Your task to perform on an android device: add a contact Image 0: 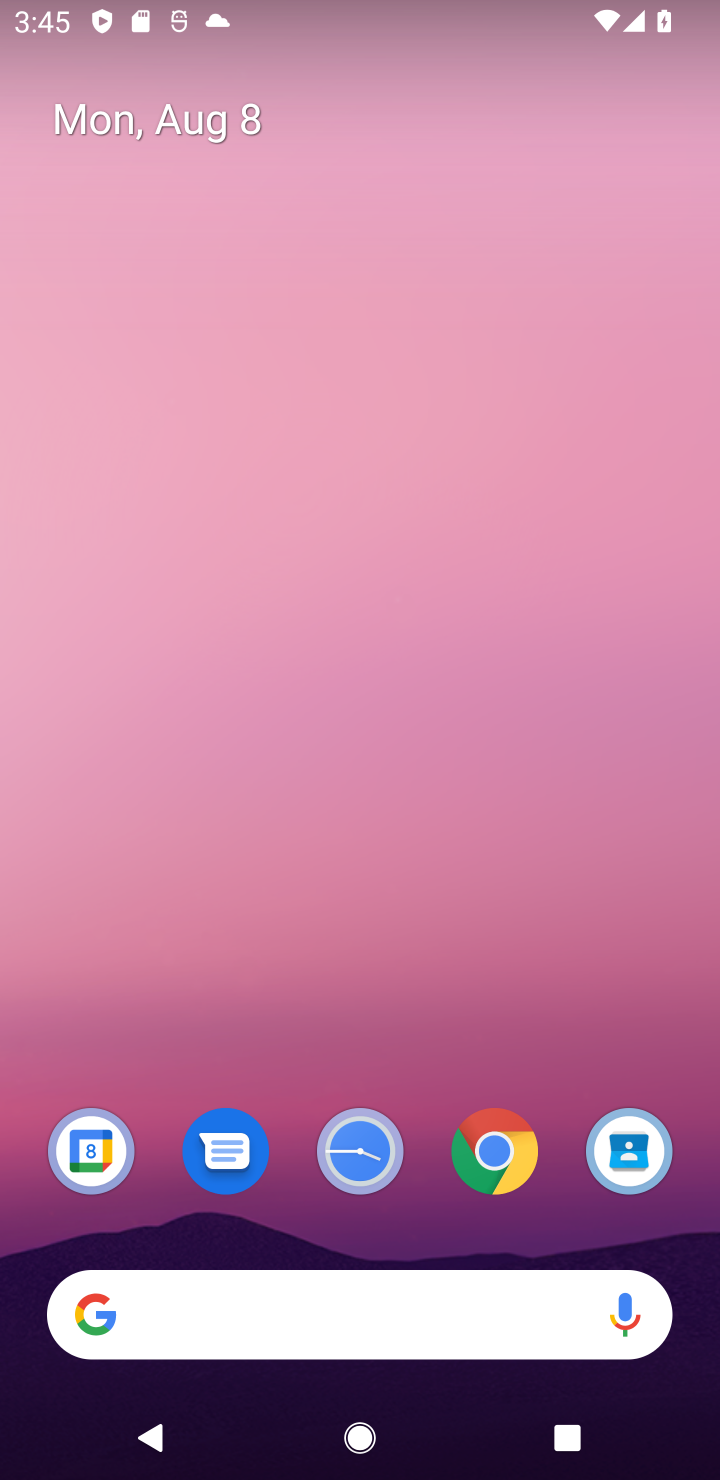
Step 0: drag from (322, 1049) to (309, 184)
Your task to perform on an android device: add a contact Image 1: 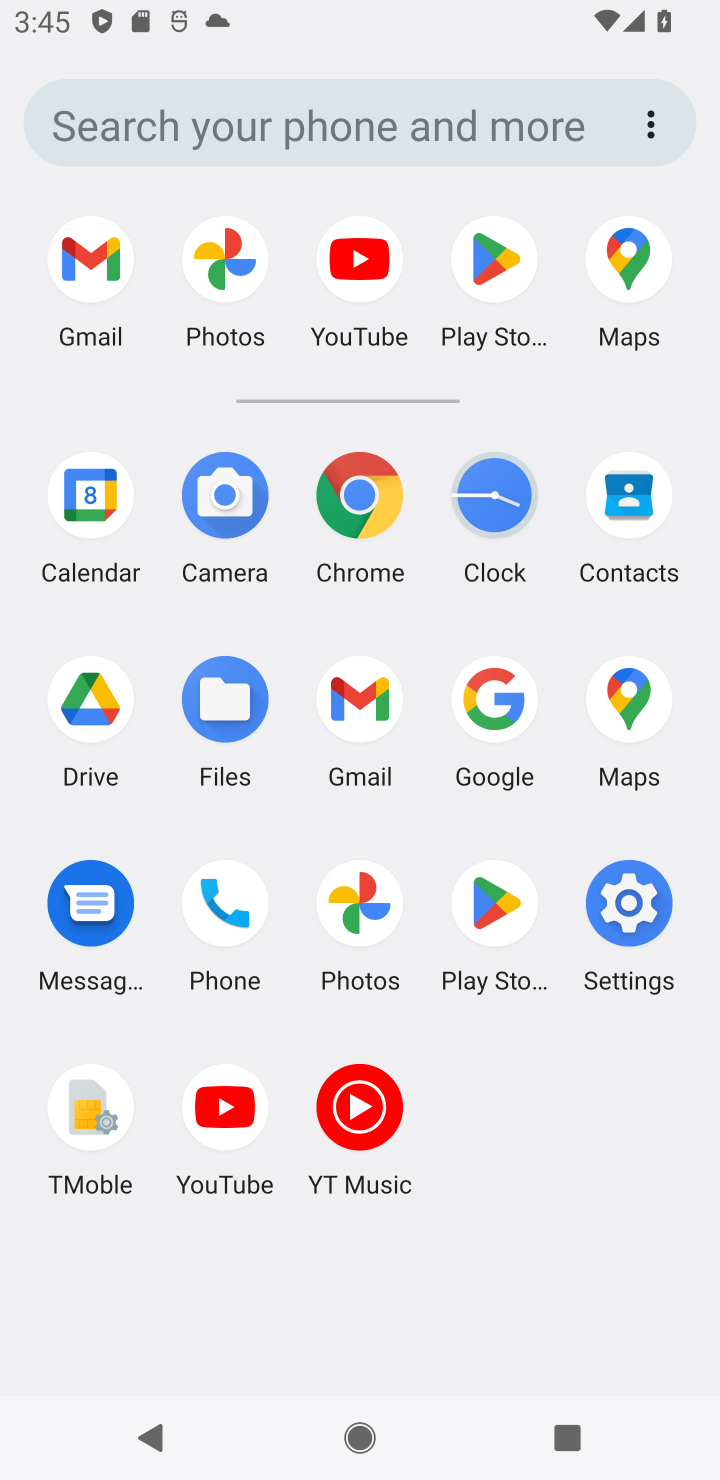
Step 1: click (630, 521)
Your task to perform on an android device: add a contact Image 2: 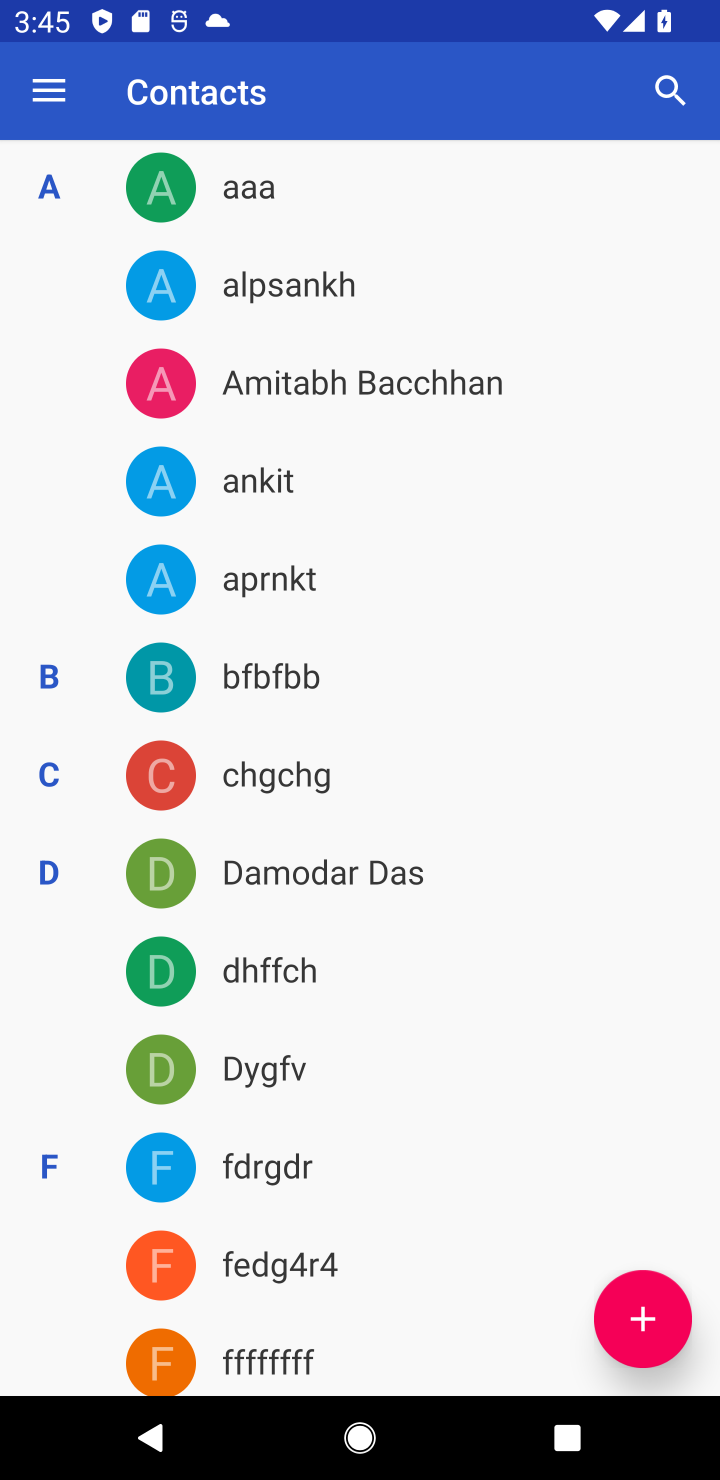
Step 2: click (636, 1298)
Your task to perform on an android device: add a contact Image 3: 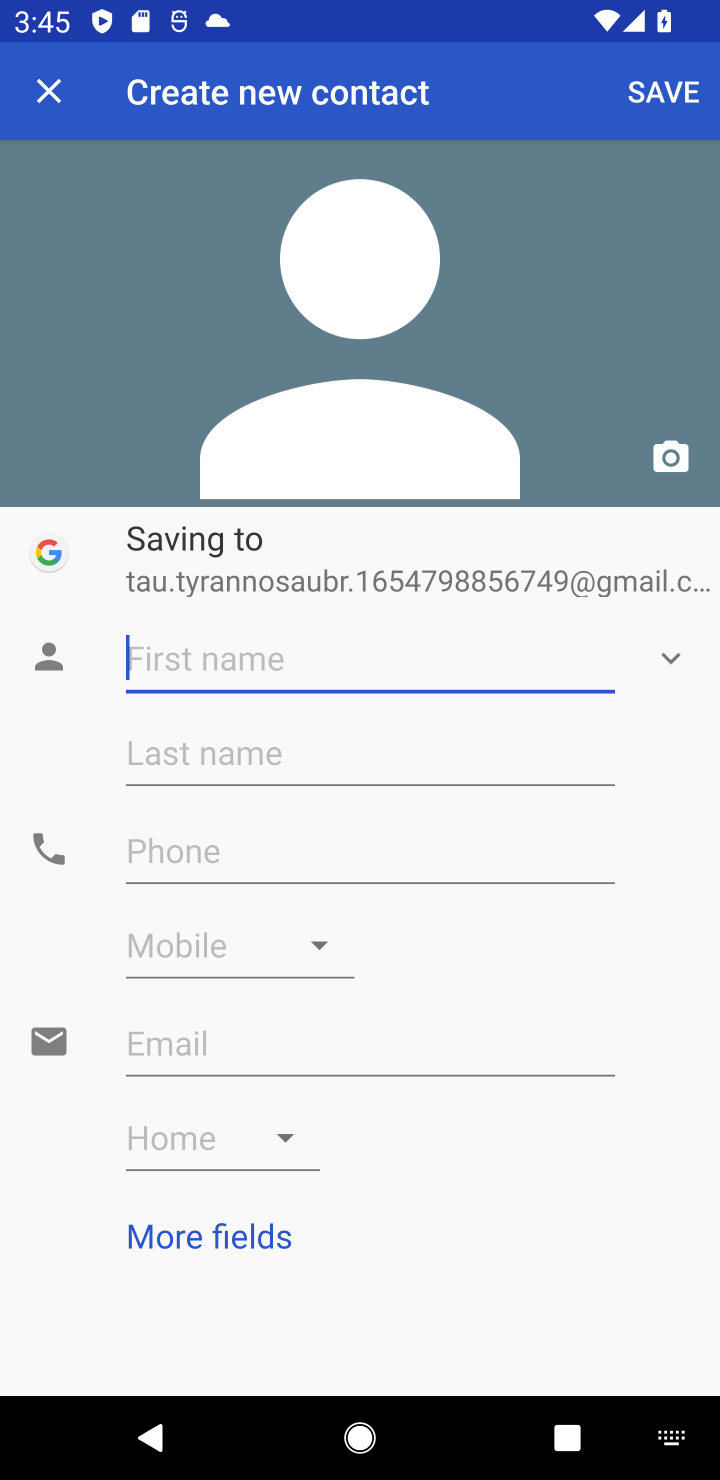
Step 3: type "grrdg"
Your task to perform on an android device: add a contact Image 4: 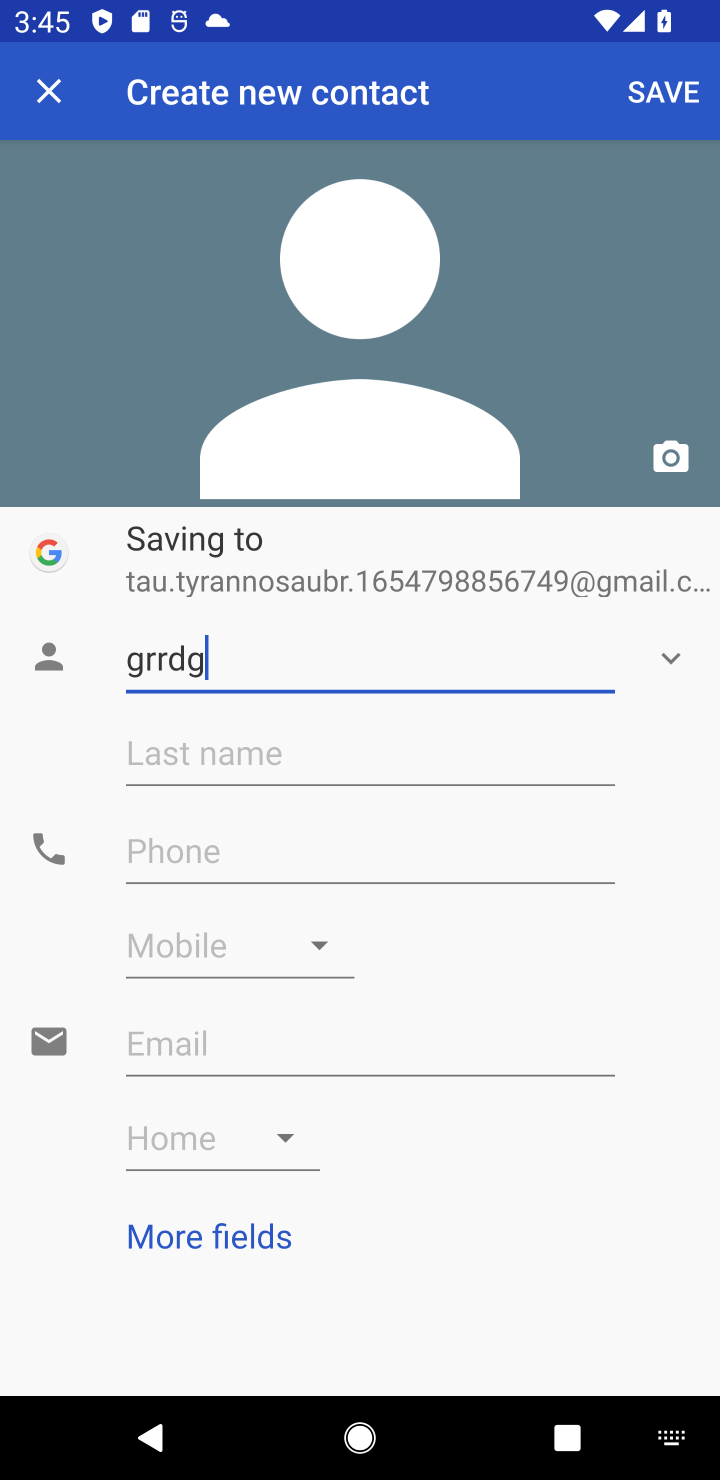
Step 4: click (351, 862)
Your task to perform on an android device: add a contact Image 5: 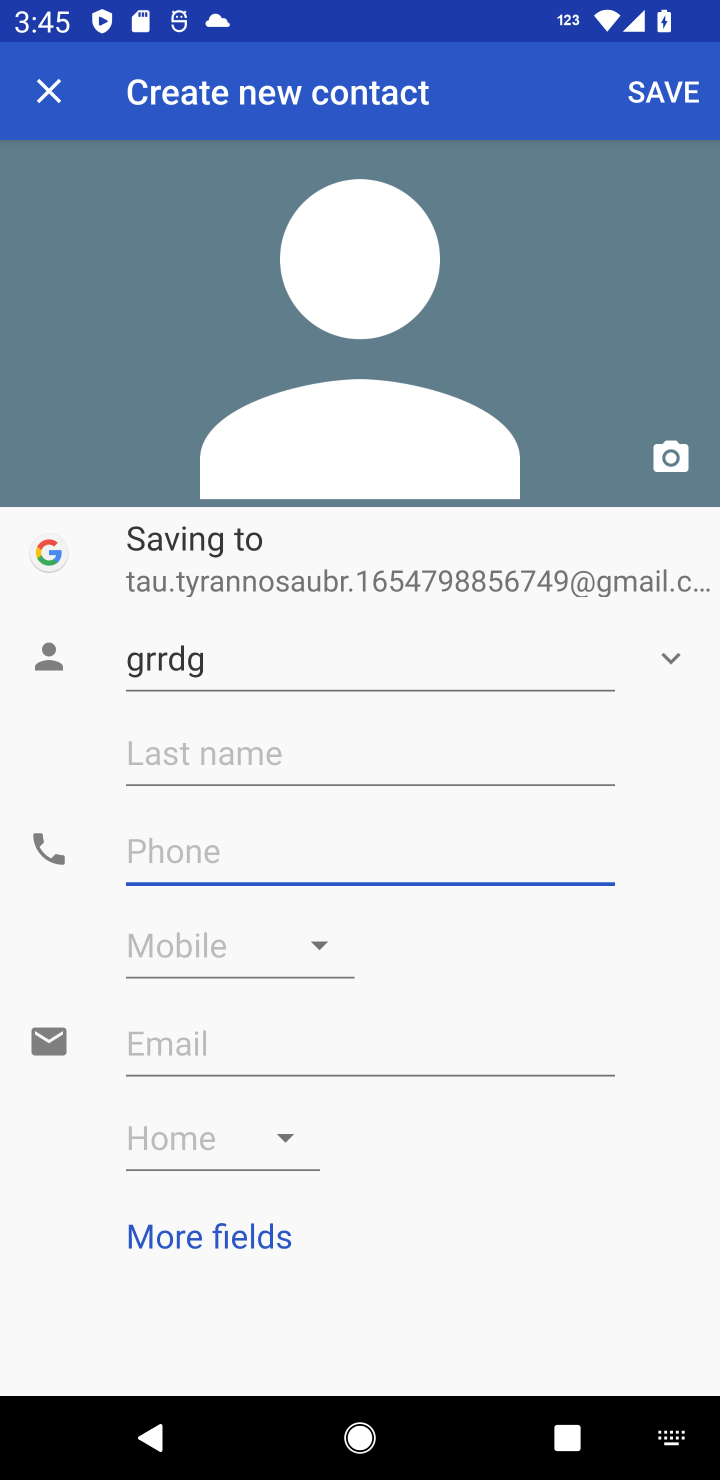
Step 5: type "96786756567"
Your task to perform on an android device: add a contact Image 6: 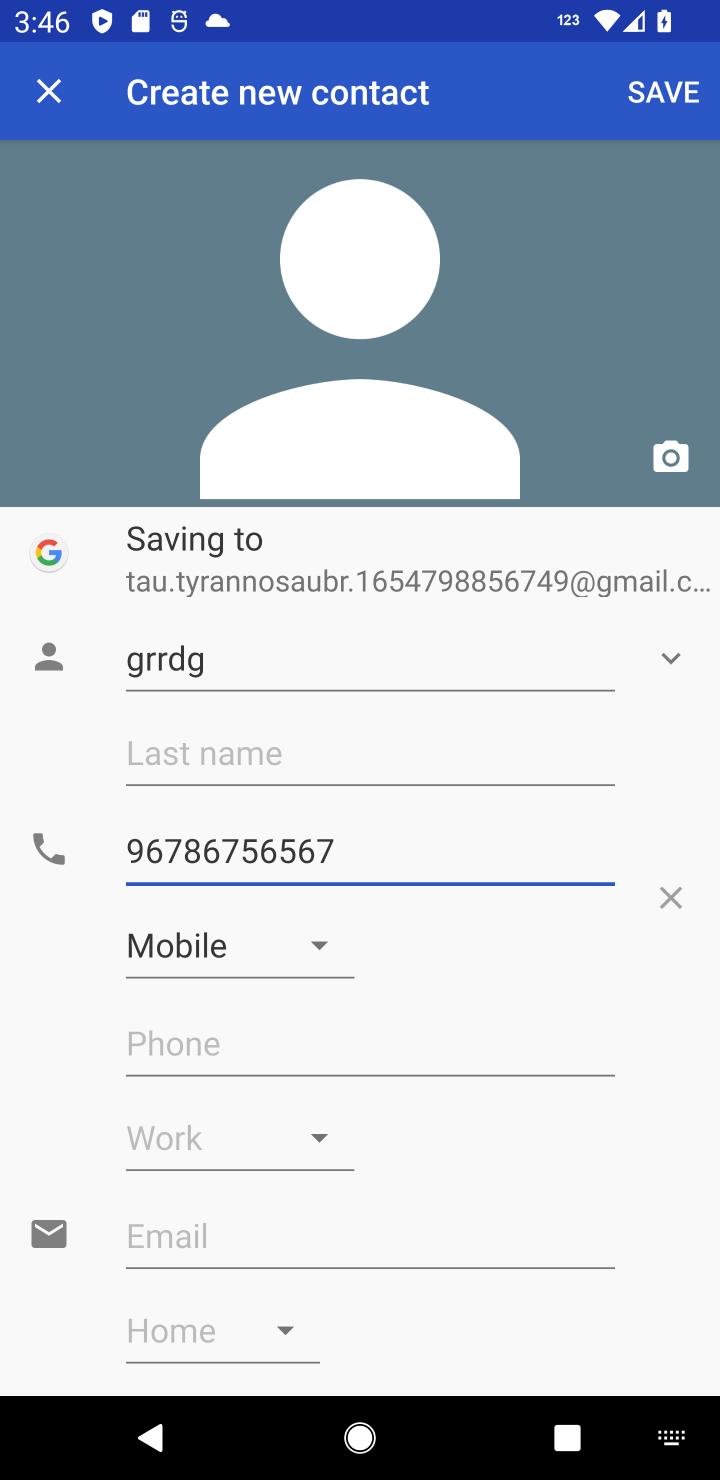
Step 6: click (635, 84)
Your task to perform on an android device: add a contact Image 7: 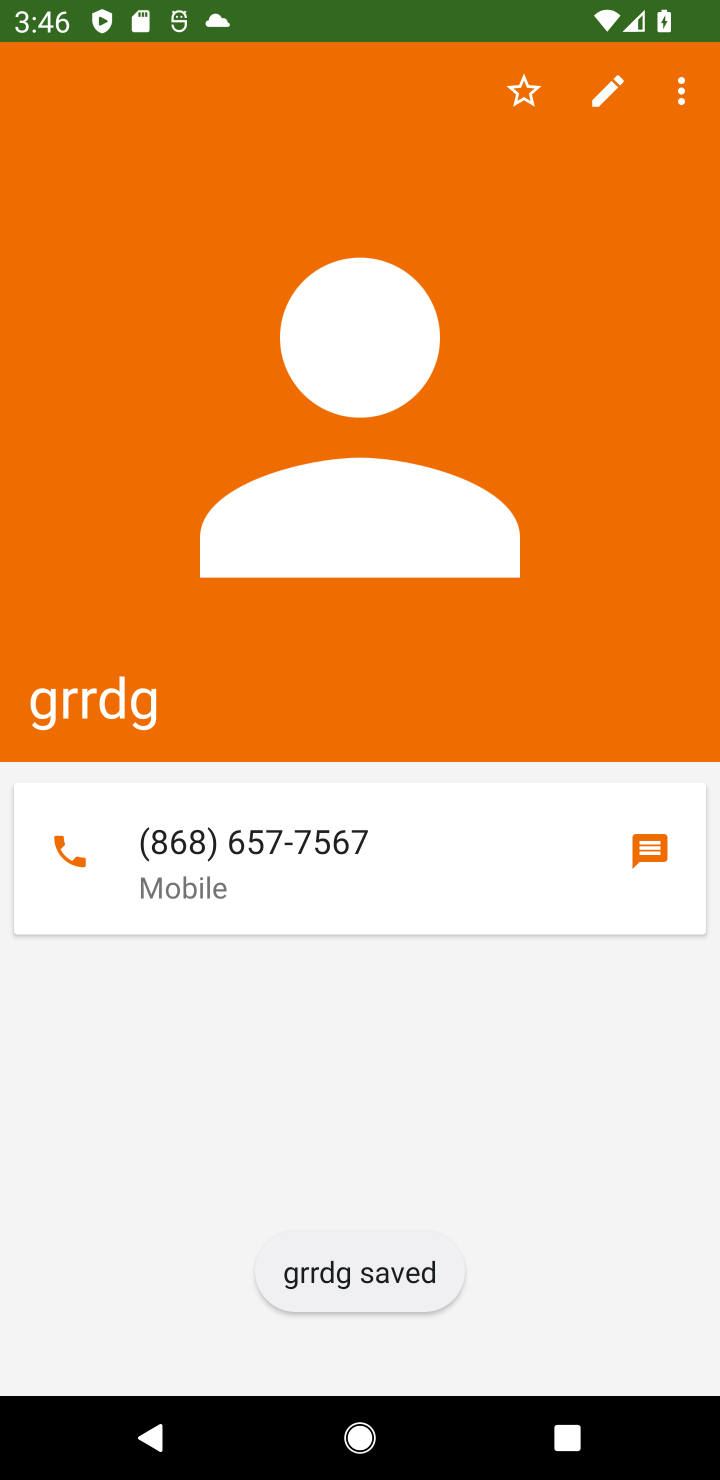
Step 7: task complete